Your task to perform on an android device: toggle notification dots Image 0: 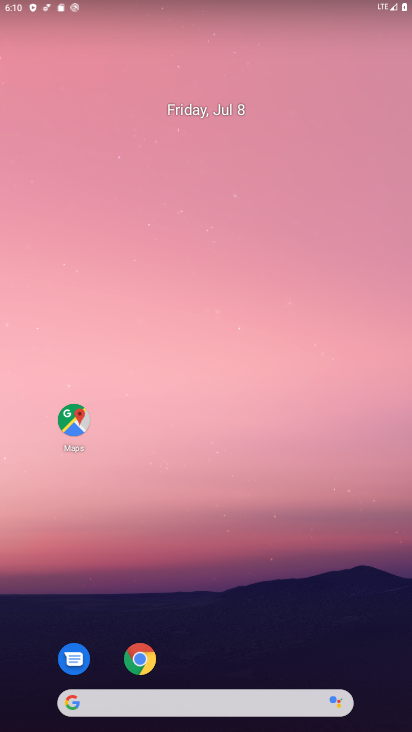
Step 0: drag from (200, 714) to (229, 107)
Your task to perform on an android device: toggle notification dots Image 1: 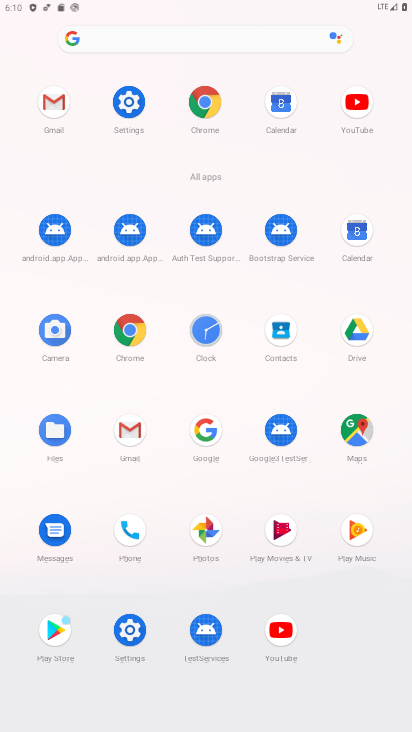
Step 1: click (133, 100)
Your task to perform on an android device: toggle notification dots Image 2: 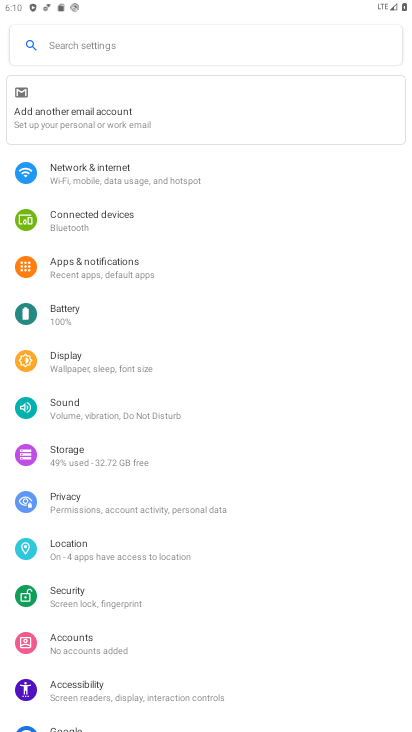
Step 2: click (127, 262)
Your task to perform on an android device: toggle notification dots Image 3: 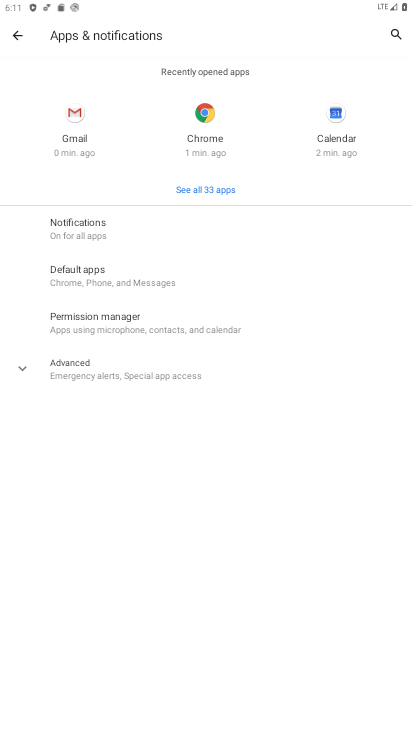
Step 3: click (87, 232)
Your task to perform on an android device: toggle notification dots Image 4: 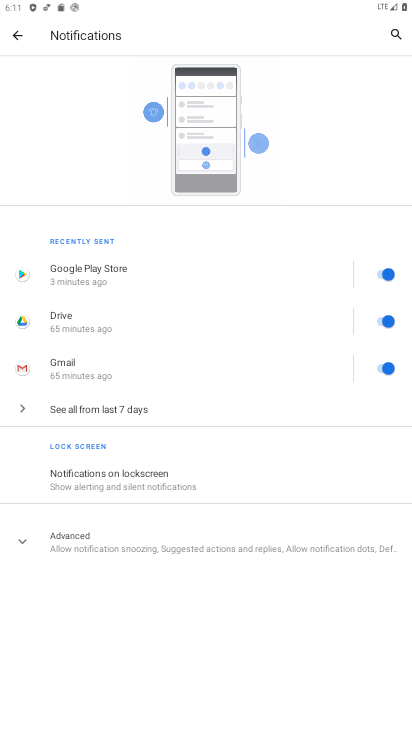
Step 4: click (86, 538)
Your task to perform on an android device: toggle notification dots Image 5: 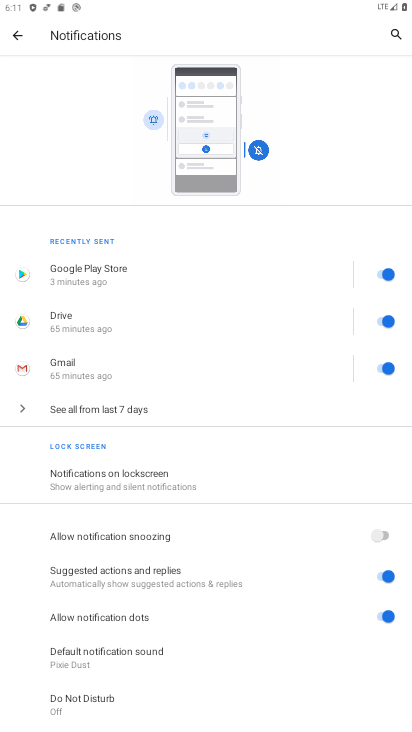
Step 5: click (390, 615)
Your task to perform on an android device: toggle notification dots Image 6: 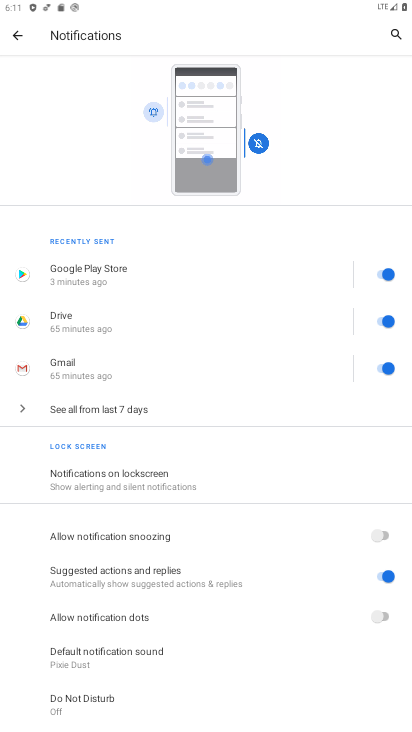
Step 6: task complete